Your task to perform on an android device: Open sound settings Image 0: 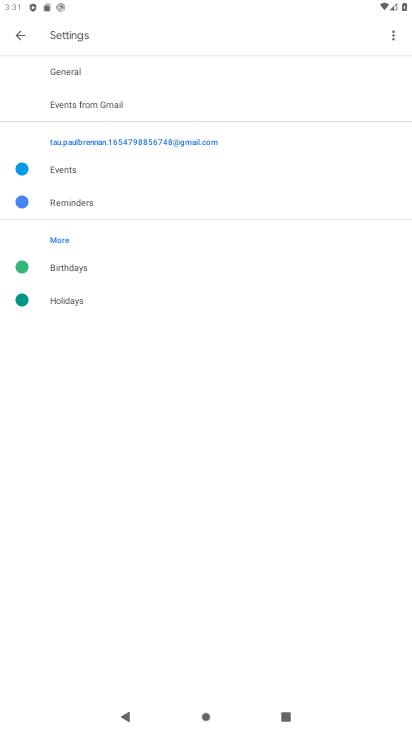
Step 0: press home button
Your task to perform on an android device: Open sound settings Image 1: 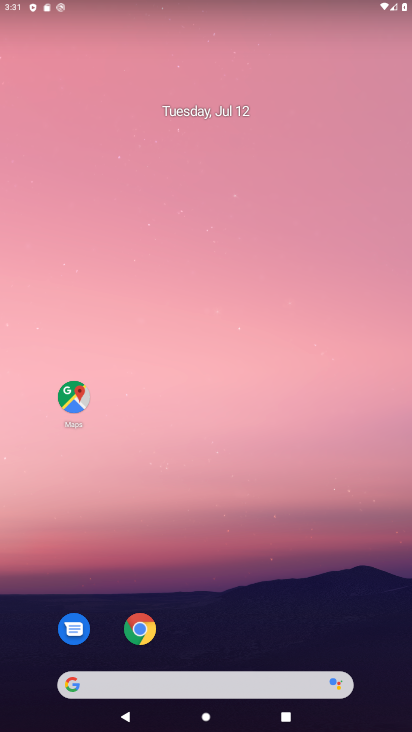
Step 1: drag from (226, 657) to (224, 129)
Your task to perform on an android device: Open sound settings Image 2: 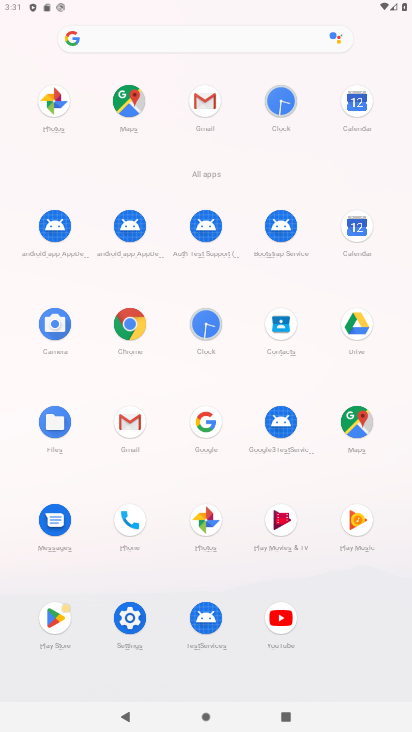
Step 2: click (121, 611)
Your task to perform on an android device: Open sound settings Image 3: 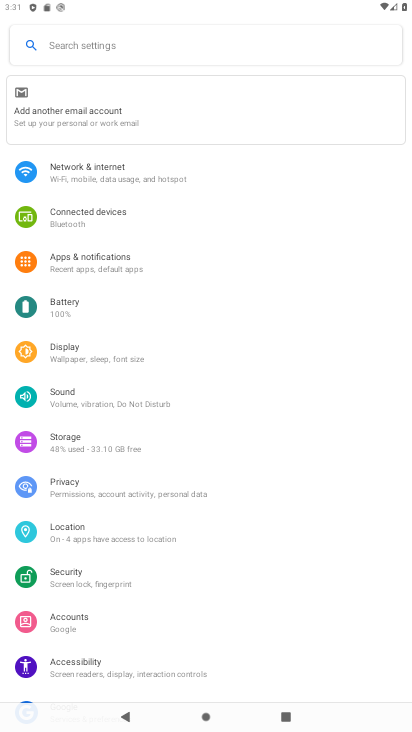
Step 3: click (78, 400)
Your task to perform on an android device: Open sound settings Image 4: 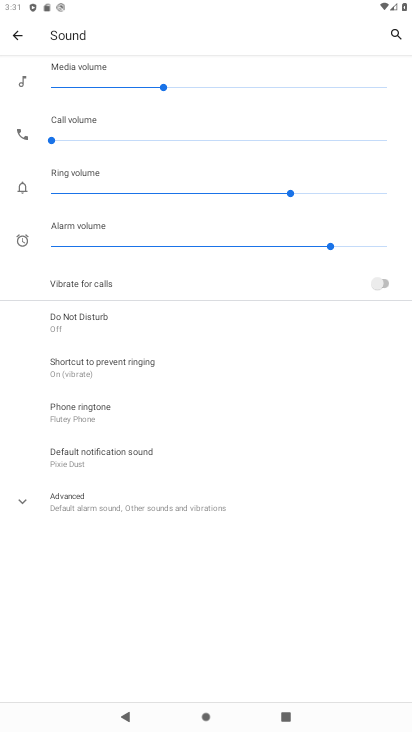
Step 4: task complete